Your task to perform on an android device: Turn off the flashlight Image 0: 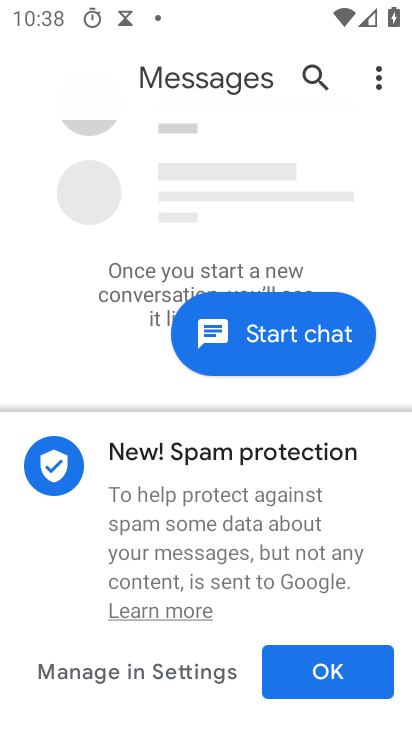
Step 0: press home button
Your task to perform on an android device: Turn off the flashlight Image 1: 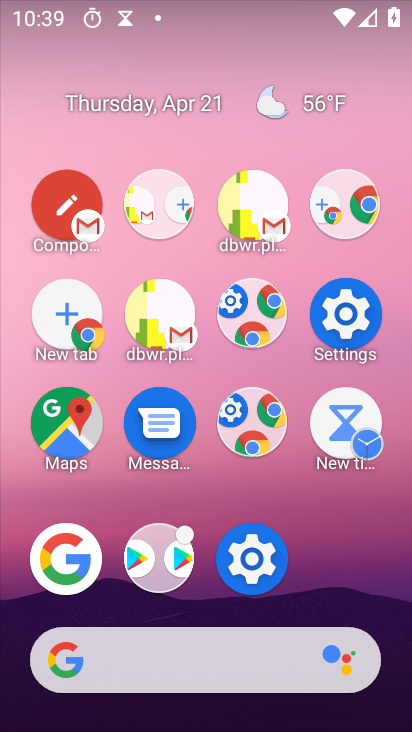
Step 1: drag from (333, 601) to (96, 67)
Your task to perform on an android device: Turn off the flashlight Image 2: 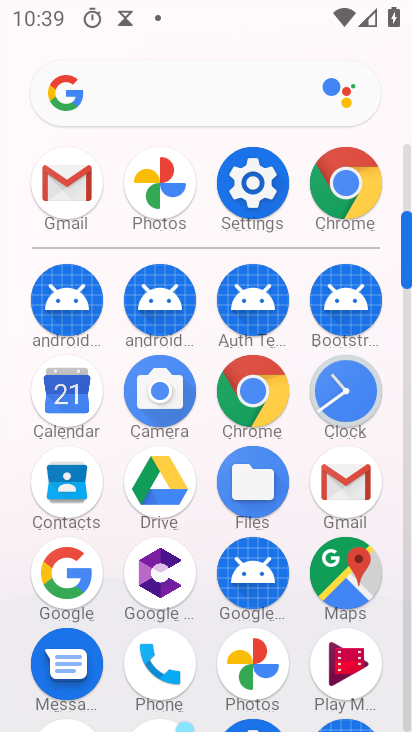
Step 2: drag from (310, 625) to (224, 46)
Your task to perform on an android device: Turn off the flashlight Image 3: 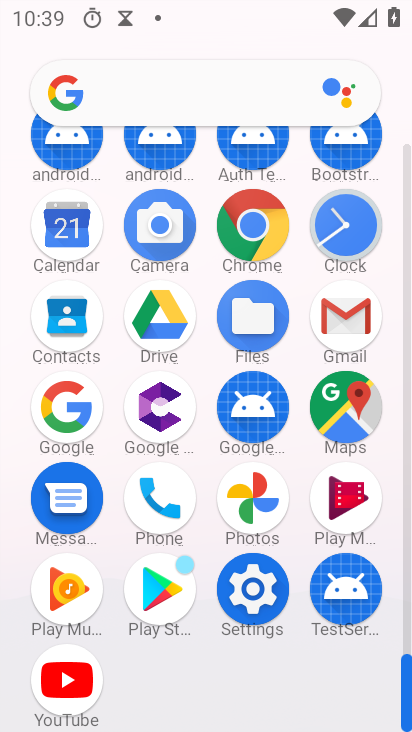
Step 3: click (252, 584)
Your task to perform on an android device: Turn off the flashlight Image 4: 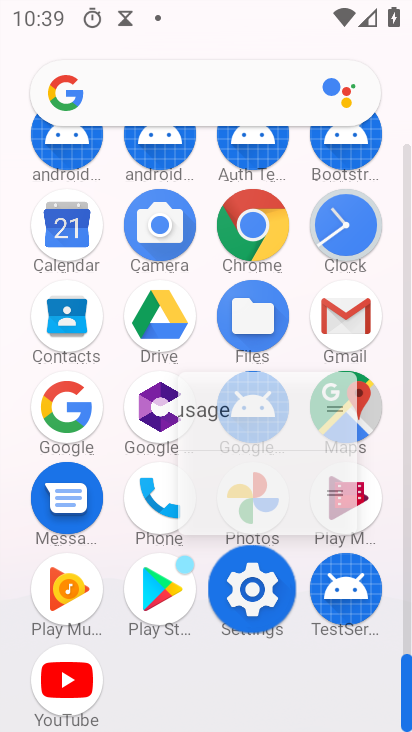
Step 4: click (248, 588)
Your task to perform on an android device: Turn off the flashlight Image 5: 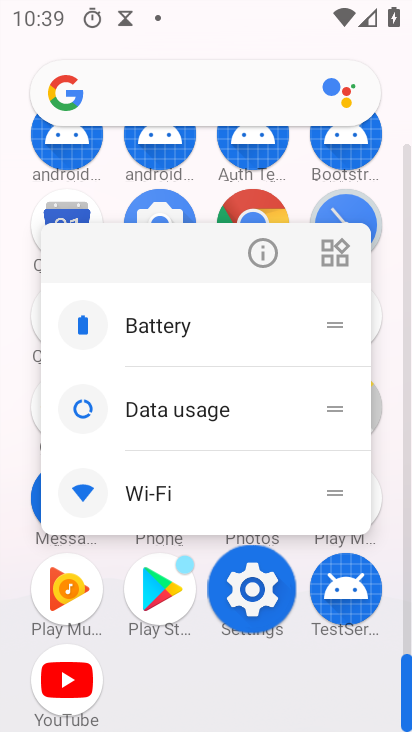
Step 5: click (248, 588)
Your task to perform on an android device: Turn off the flashlight Image 6: 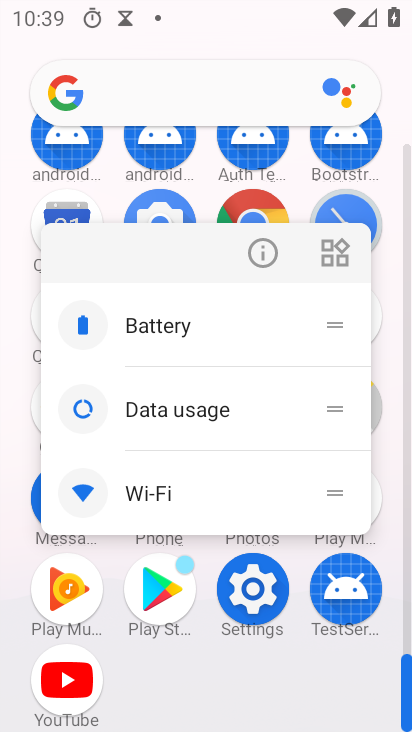
Step 6: click (256, 574)
Your task to perform on an android device: Turn off the flashlight Image 7: 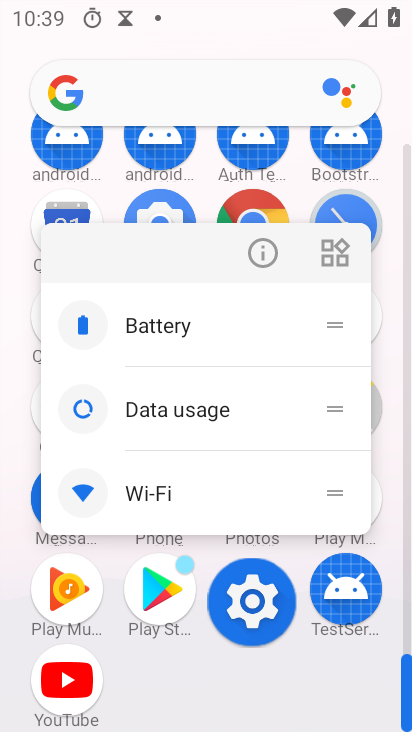
Step 7: click (256, 587)
Your task to perform on an android device: Turn off the flashlight Image 8: 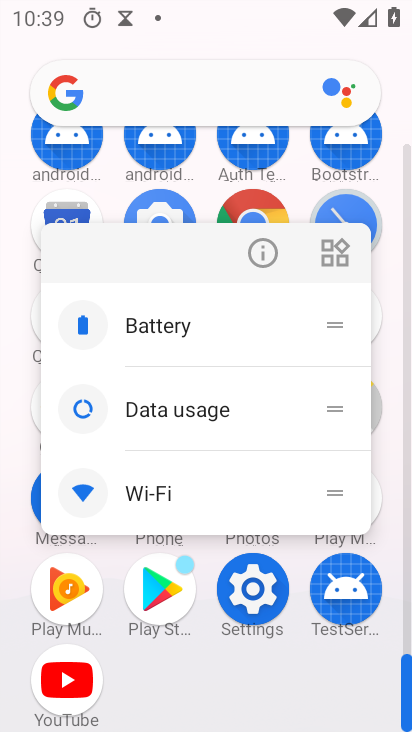
Step 8: click (256, 588)
Your task to perform on an android device: Turn off the flashlight Image 9: 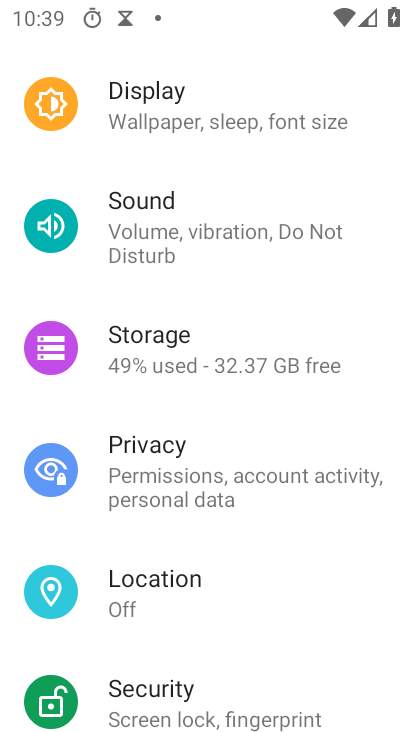
Step 9: task complete